Your task to perform on an android device: Go to privacy settings Image 0: 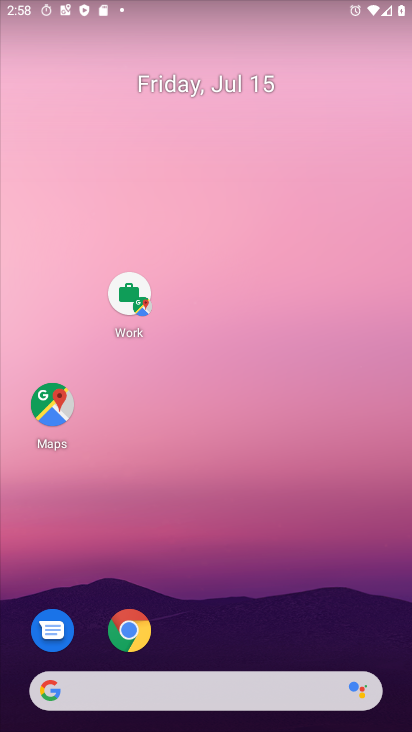
Step 0: drag from (245, 611) to (249, 281)
Your task to perform on an android device: Go to privacy settings Image 1: 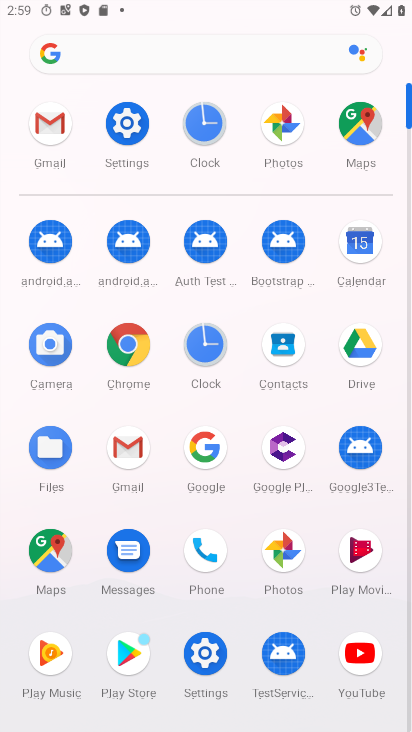
Step 1: click (122, 152)
Your task to perform on an android device: Go to privacy settings Image 2: 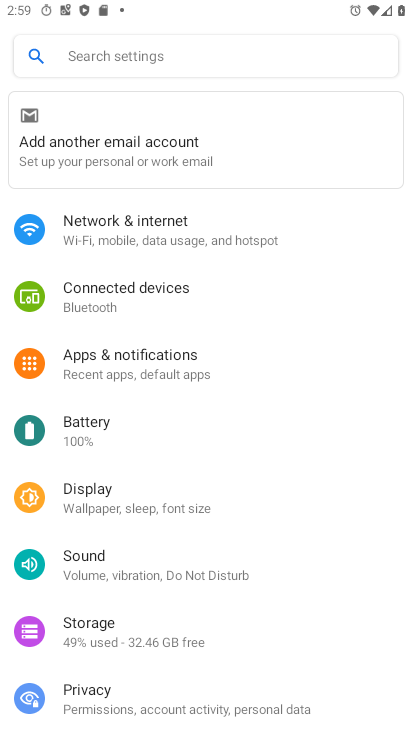
Step 2: click (131, 712)
Your task to perform on an android device: Go to privacy settings Image 3: 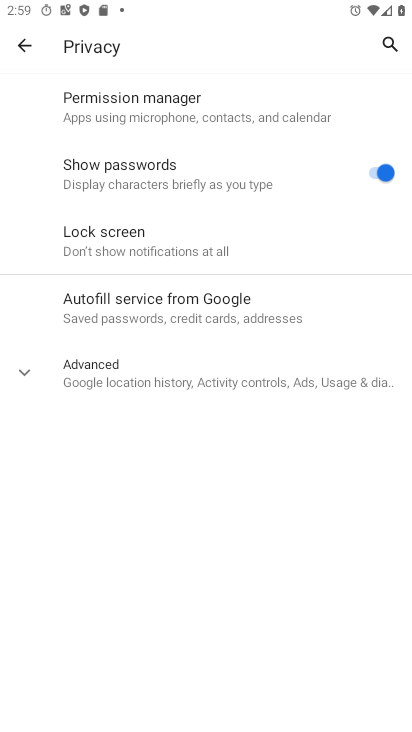
Step 3: task complete